Your task to perform on an android device: see tabs open on other devices in the chrome app Image 0: 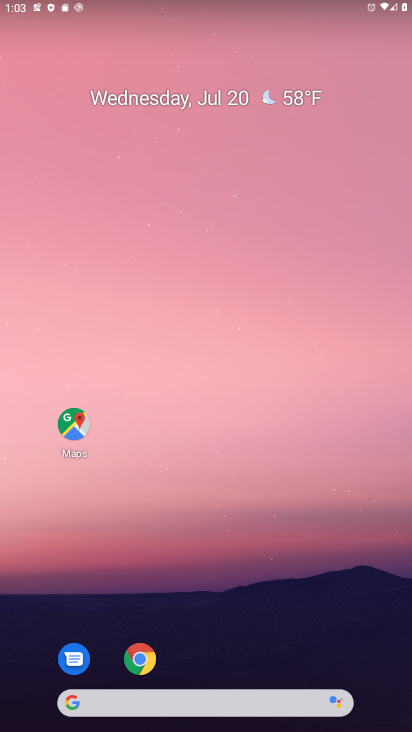
Step 0: click (140, 657)
Your task to perform on an android device: see tabs open on other devices in the chrome app Image 1: 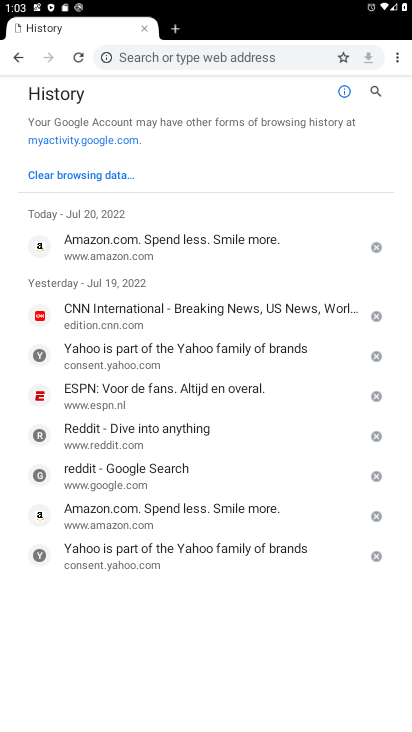
Step 1: click (396, 59)
Your task to perform on an android device: see tabs open on other devices in the chrome app Image 2: 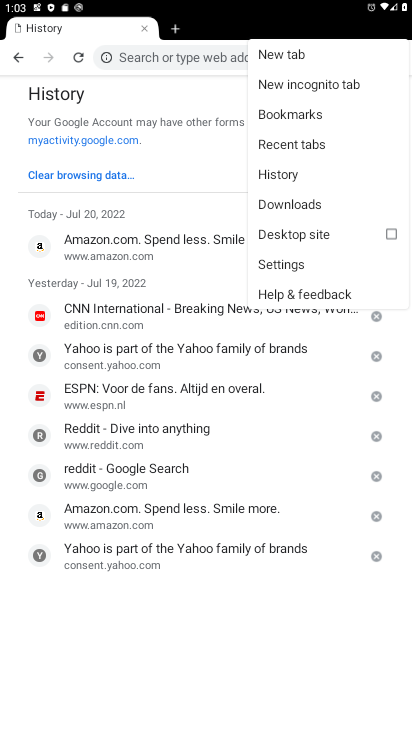
Step 2: click (324, 140)
Your task to perform on an android device: see tabs open on other devices in the chrome app Image 3: 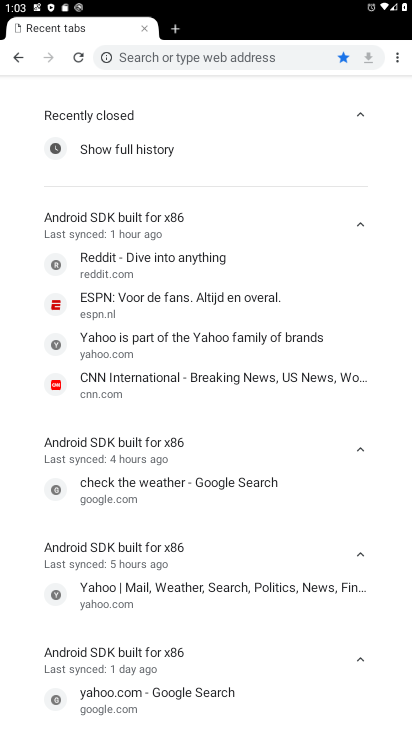
Step 3: task complete